Your task to perform on an android device: turn on wifi Image 0: 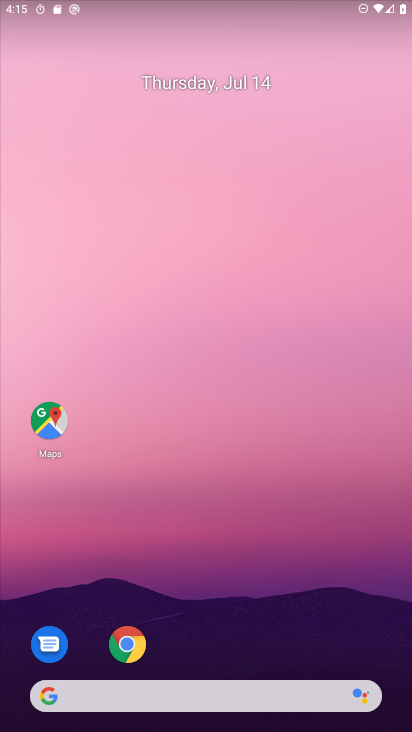
Step 0: drag from (93, 39) to (173, 581)
Your task to perform on an android device: turn on wifi Image 1: 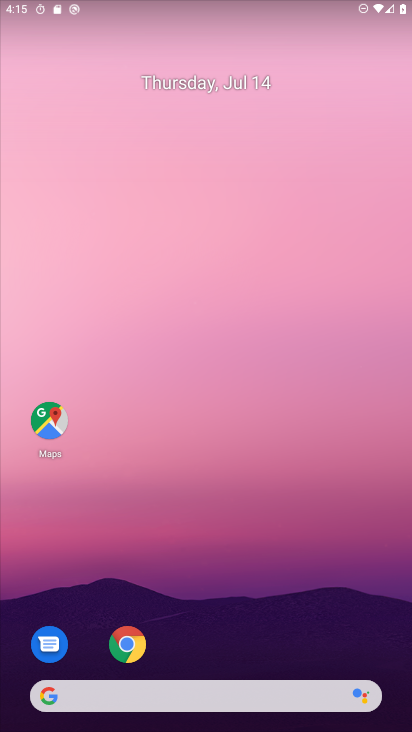
Step 1: task complete